Your task to perform on an android device: open device folders in google photos Image 0: 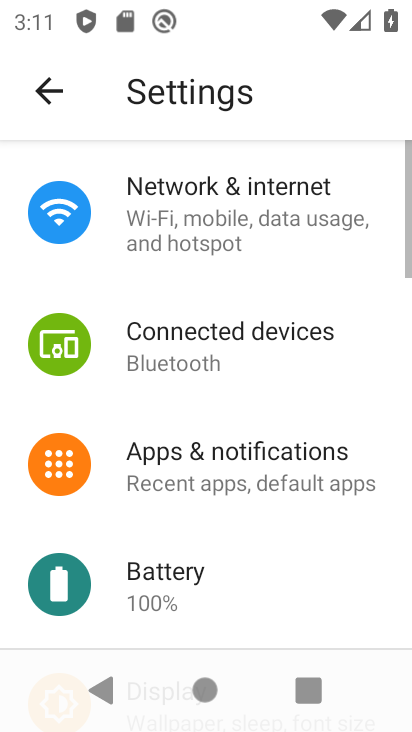
Step 0: press home button
Your task to perform on an android device: open device folders in google photos Image 1: 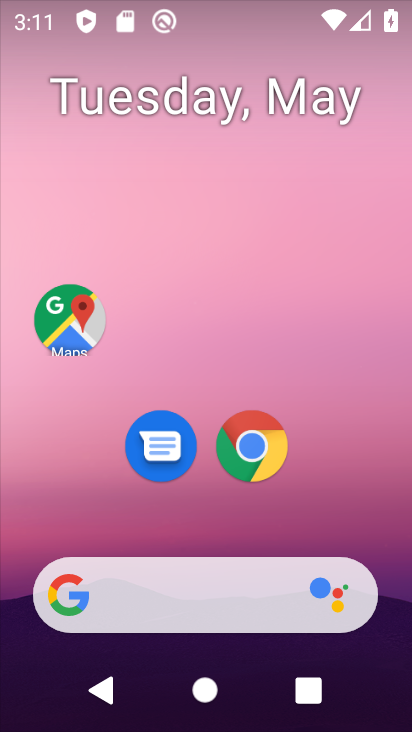
Step 1: drag from (222, 725) to (231, 161)
Your task to perform on an android device: open device folders in google photos Image 2: 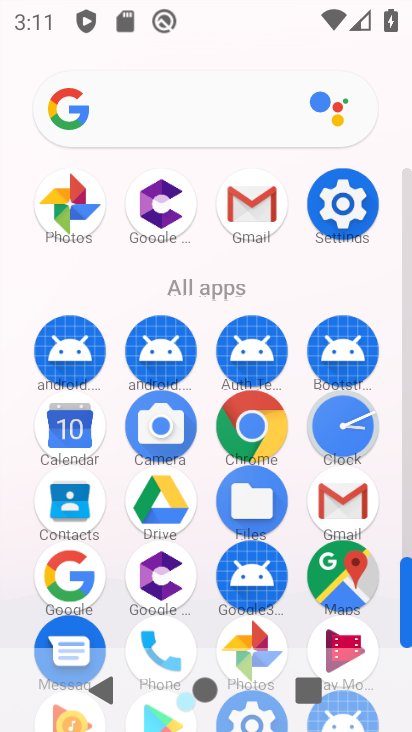
Step 2: drag from (192, 615) to (232, 309)
Your task to perform on an android device: open device folders in google photos Image 3: 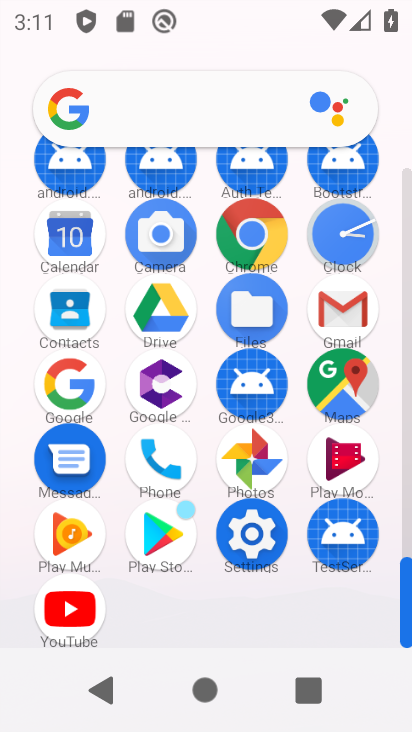
Step 3: click (249, 458)
Your task to perform on an android device: open device folders in google photos Image 4: 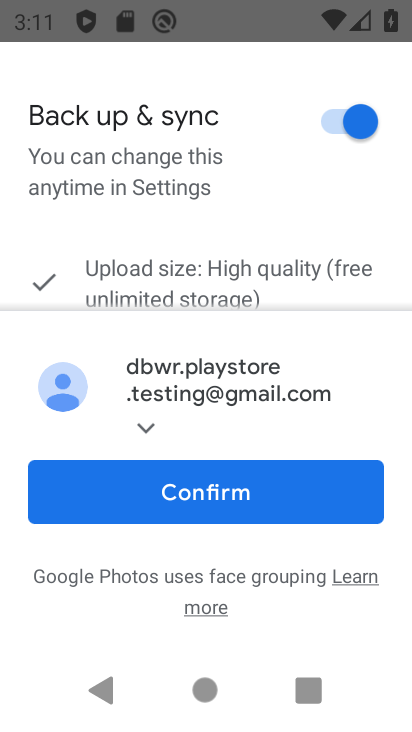
Step 4: click (241, 496)
Your task to perform on an android device: open device folders in google photos Image 5: 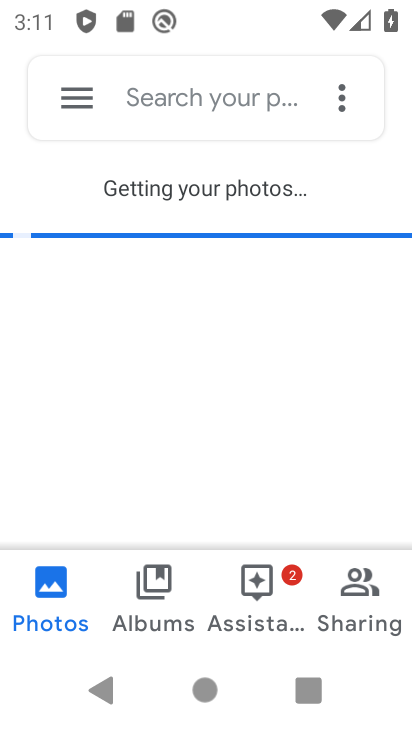
Step 5: click (73, 105)
Your task to perform on an android device: open device folders in google photos Image 6: 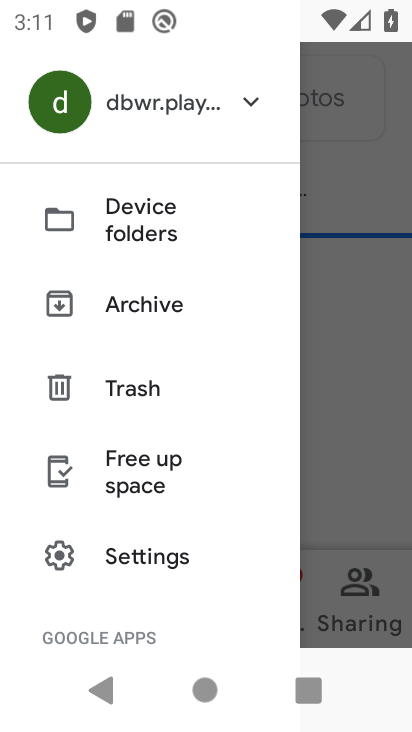
Step 6: click (153, 222)
Your task to perform on an android device: open device folders in google photos Image 7: 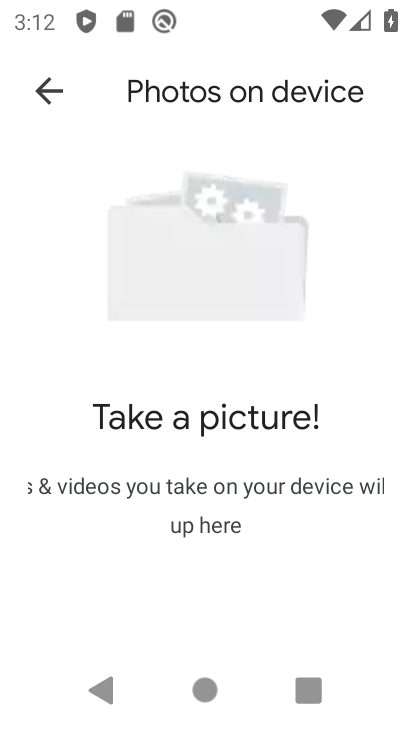
Step 7: task complete